Your task to perform on an android device: create a new album in the google photos Image 0: 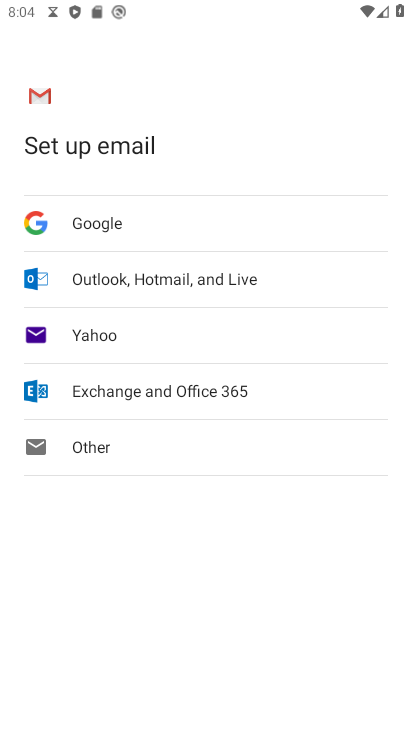
Step 0: press home button
Your task to perform on an android device: create a new album in the google photos Image 1: 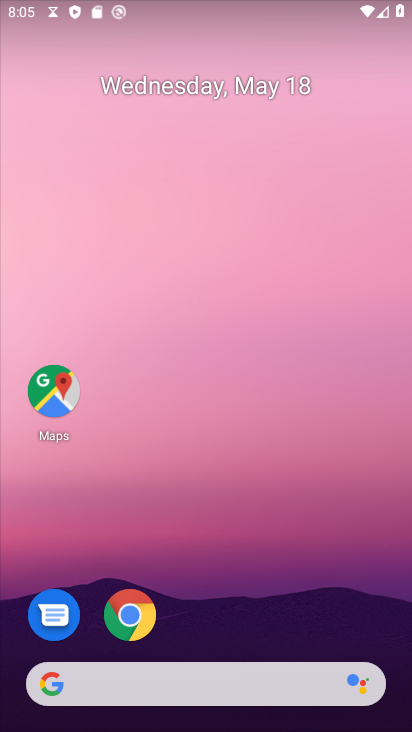
Step 1: drag from (243, 610) to (230, 61)
Your task to perform on an android device: create a new album in the google photos Image 2: 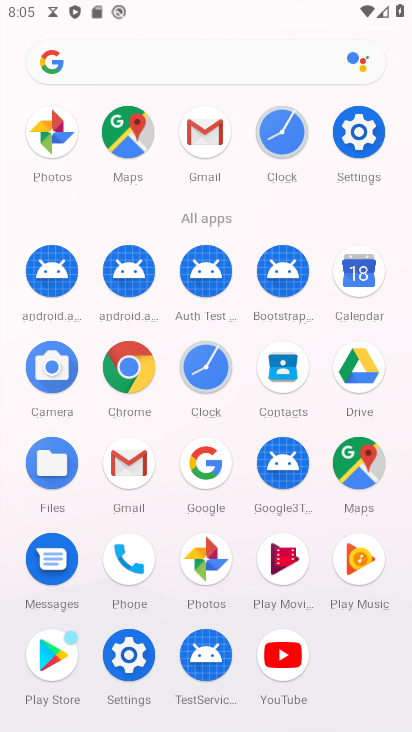
Step 2: click (207, 550)
Your task to perform on an android device: create a new album in the google photos Image 3: 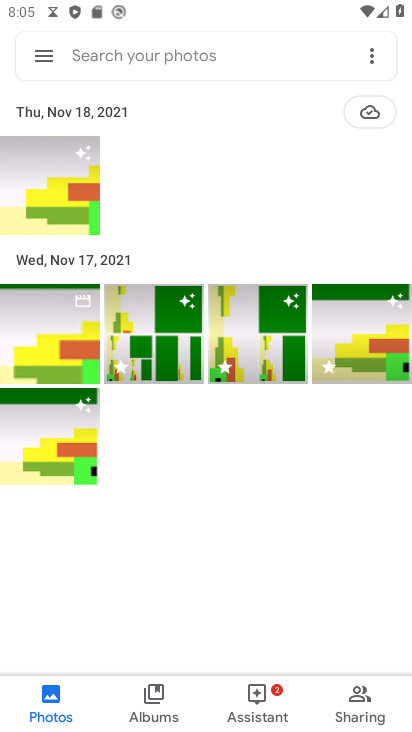
Step 3: click (374, 56)
Your task to perform on an android device: create a new album in the google photos Image 4: 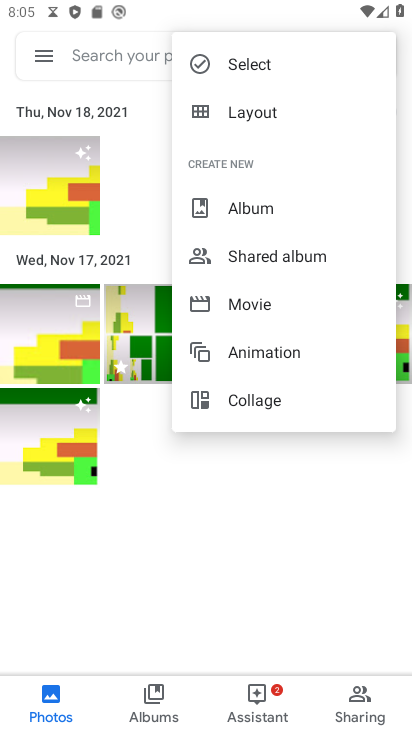
Step 4: click (258, 201)
Your task to perform on an android device: create a new album in the google photos Image 5: 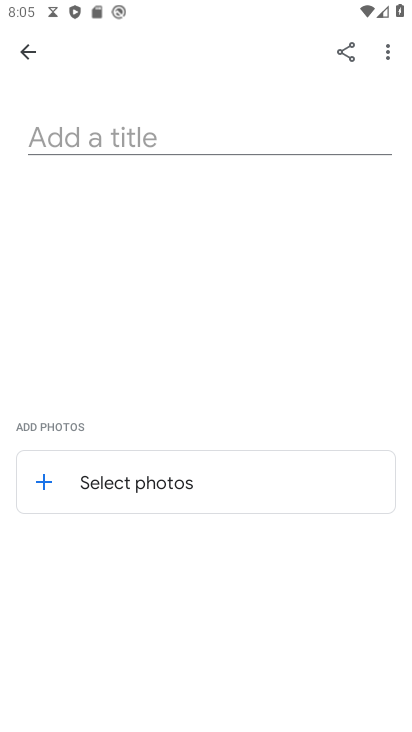
Step 5: click (177, 135)
Your task to perform on an android device: create a new album in the google photos Image 6: 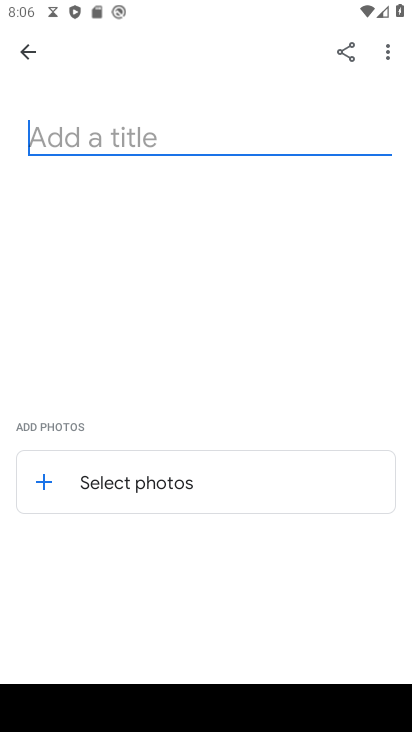
Step 6: type "dvsvds"
Your task to perform on an android device: create a new album in the google photos Image 7: 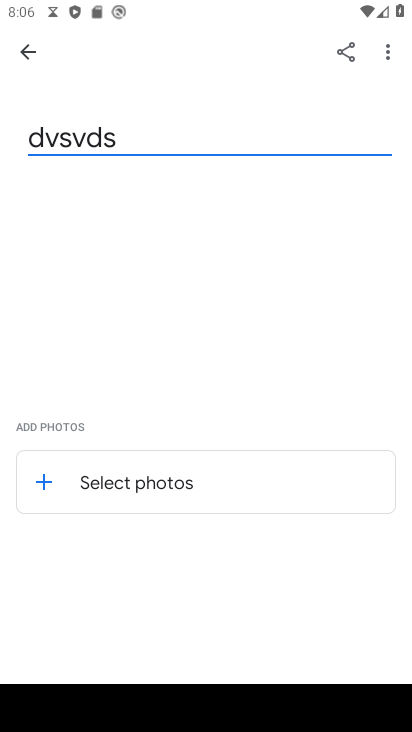
Step 7: click (49, 488)
Your task to perform on an android device: create a new album in the google photos Image 8: 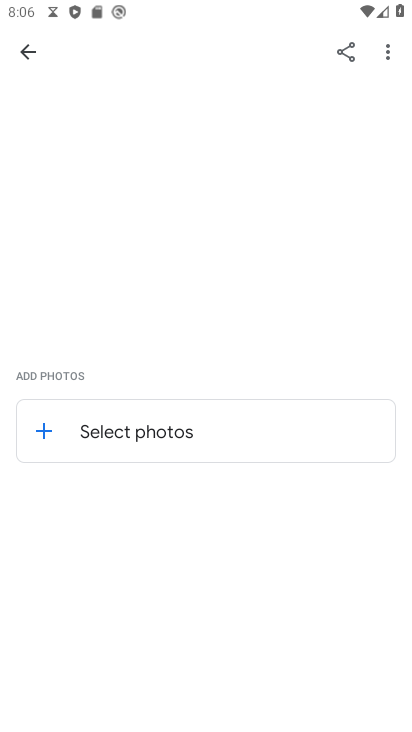
Step 8: click (51, 429)
Your task to perform on an android device: create a new album in the google photos Image 9: 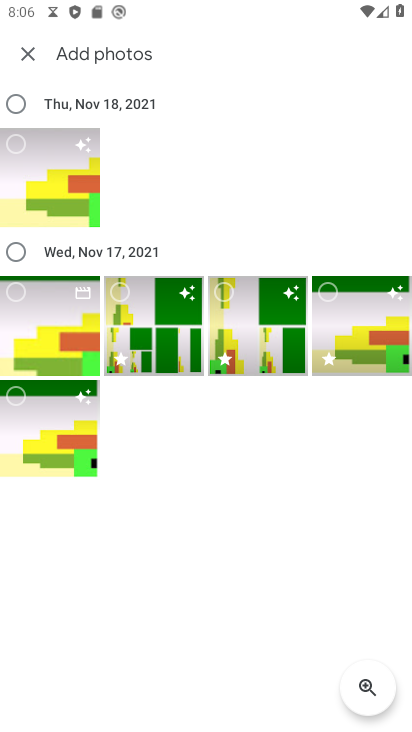
Step 9: click (14, 98)
Your task to perform on an android device: create a new album in the google photos Image 10: 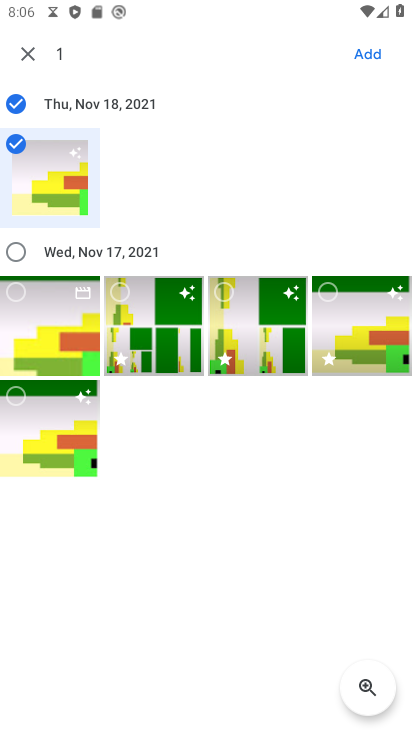
Step 10: click (7, 245)
Your task to perform on an android device: create a new album in the google photos Image 11: 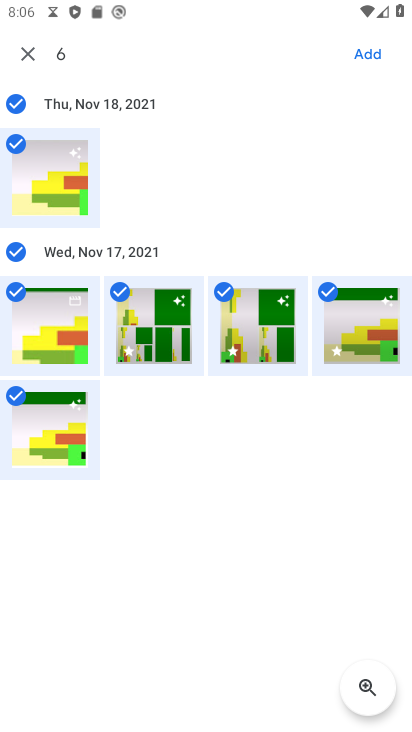
Step 11: click (374, 46)
Your task to perform on an android device: create a new album in the google photos Image 12: 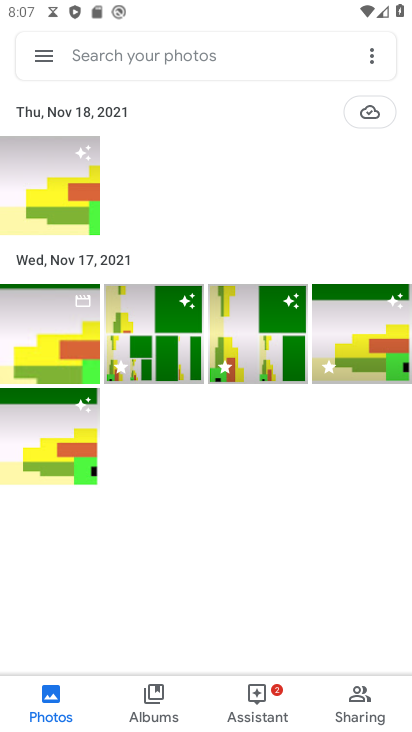
Step 12: task complete